Your task to perform on an android device: check data usage Image 0: 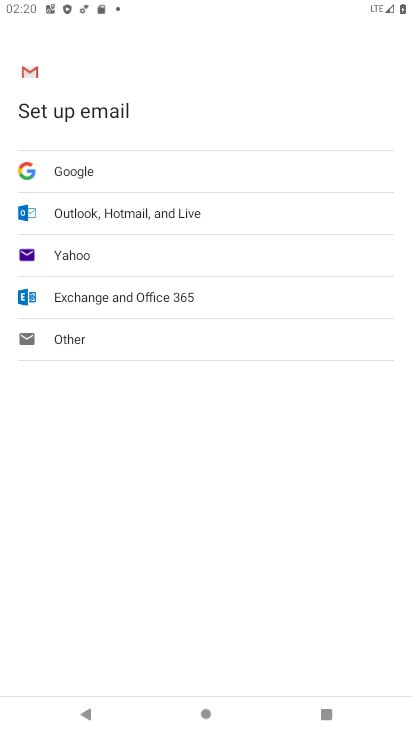
Step 0: press home button
Your task to perform on an android device: check data usage Image 1: 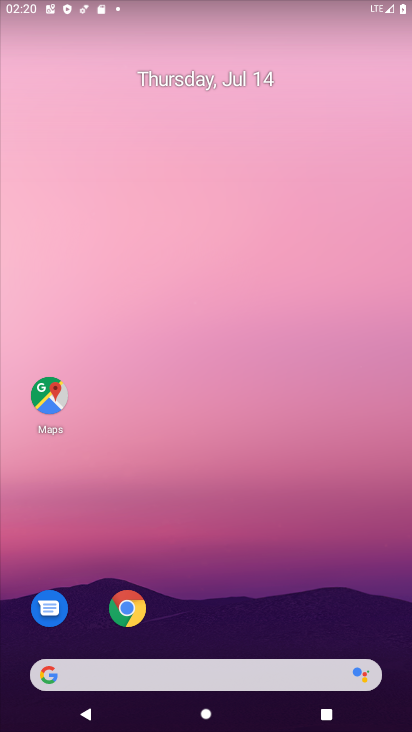
Step 1: drag from (28, 575) to (299, 55)
Your task to perform on an android device: check data usage Image 2: 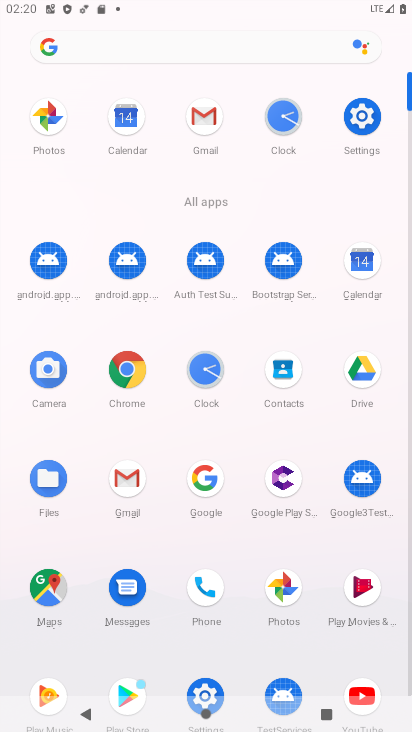
Step 2: click (355, 118)
Your task to perform on an android device: check data usage Image 3: 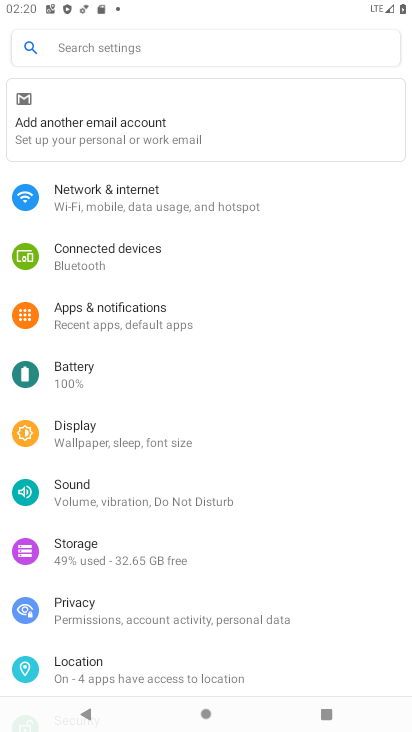
Step 3: click (38, 200)
Your task to perform on an android device: check data usage Image 4: 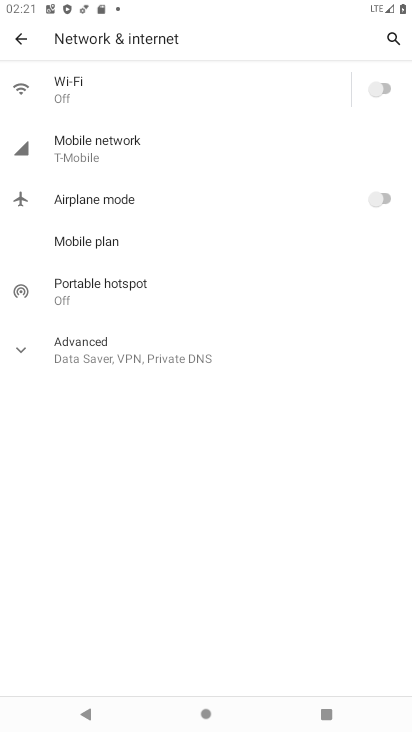
Step 4: click (138, 133)
Your task to perform on an android device: check data usage Image 5: 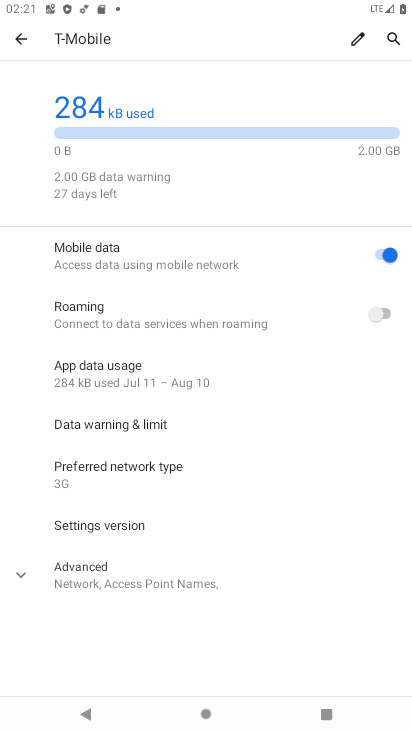
Step 5: task complete